Your task to perform on an android device: Open battery settings Image 0: 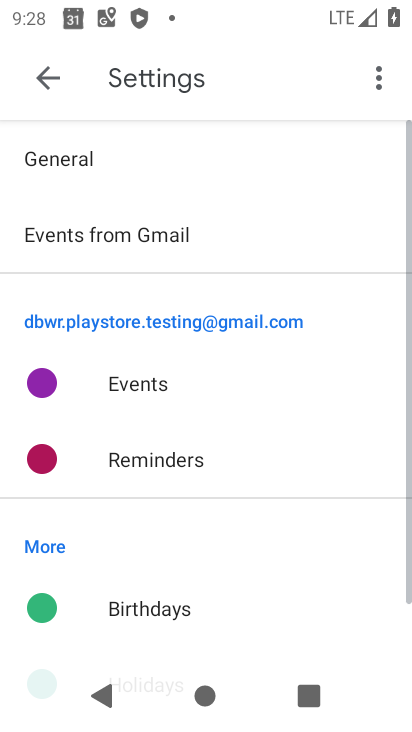
Step 0: press home button
Your task to perform on an android device: Open battery settings Image 1: 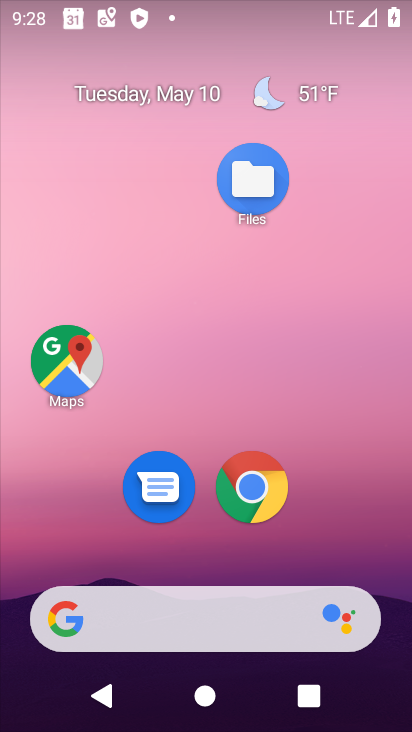
Step 1: drag from (191, 546) to (166, 103)
Your task to perform on an android device: Open battery settings Image 2: 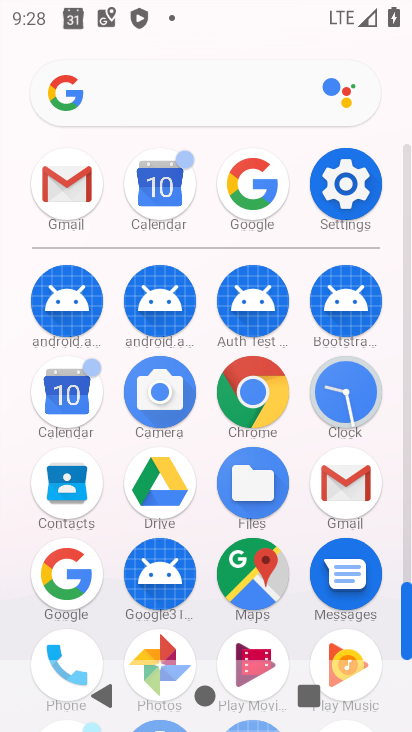
Step 2: click (349, 188)
Your task to perform on an android device: Open battery settings Image 3: 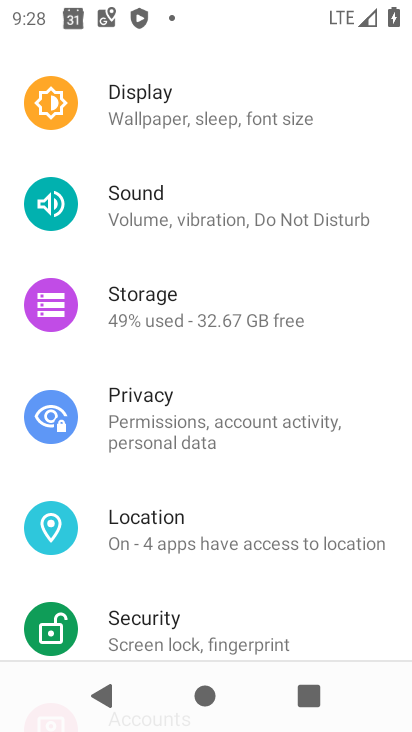
Step 3: drag from (180, 256) to (250, 607)
Your task to perform on an android device: Open battery settings Image 4: 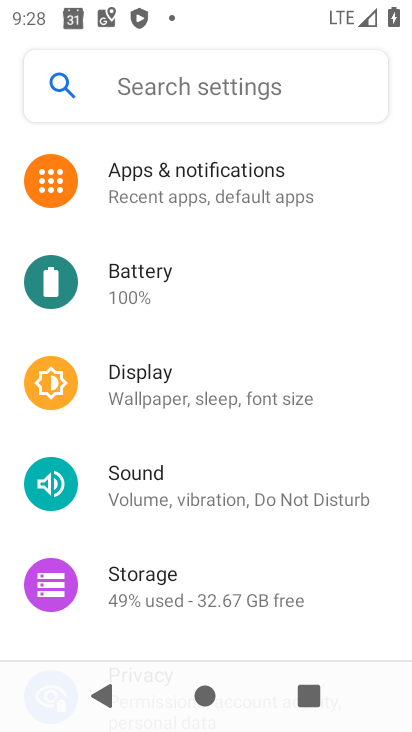
Step 4: click (173, 292)
Your task to perform on an android device: Open battery settings Image 5: 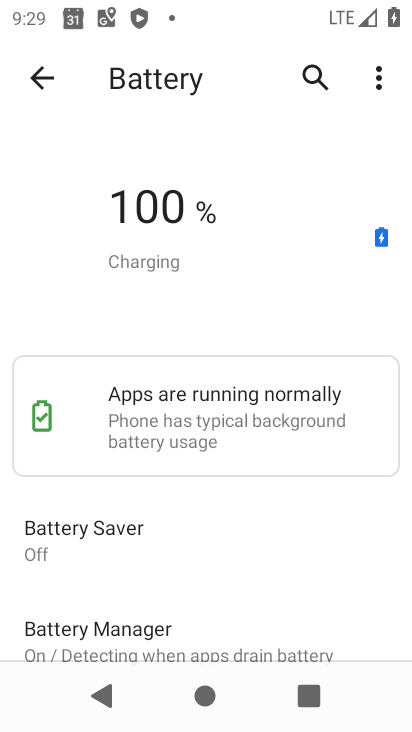
Step 5: task complete